Your task to perform on an android device: Open Youtube and go to "Your channel" Image 0: 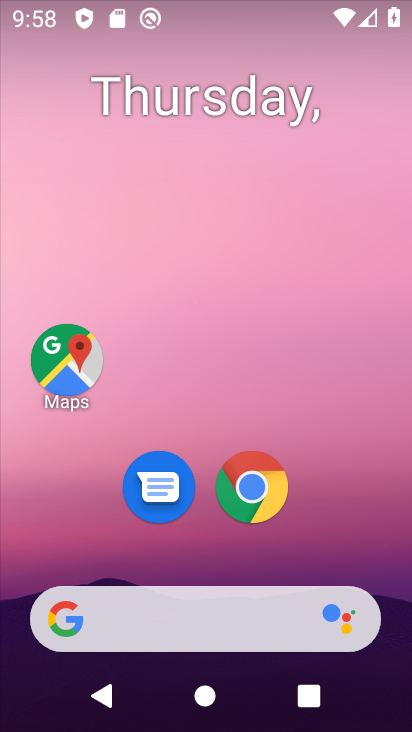
Step 0: drag from (344, 546) to (212, 204)
Your task to perform on an android device: Open Youtube and go to "Your channel" Image 1: 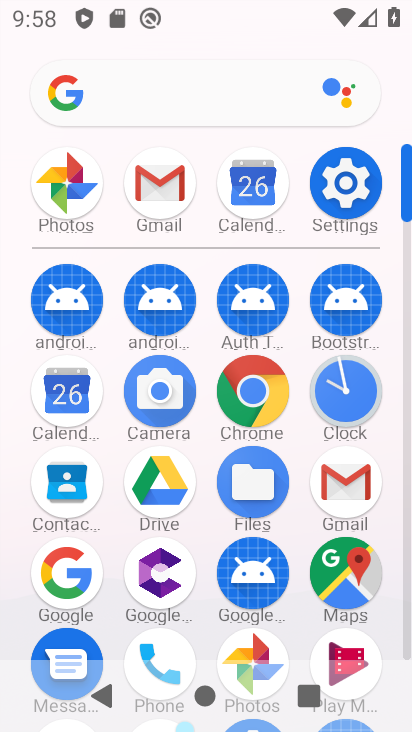
Step 1: click (405, 171)
Your task to perform on an android device: Open Youtube and go to "Your channel" Image 2: 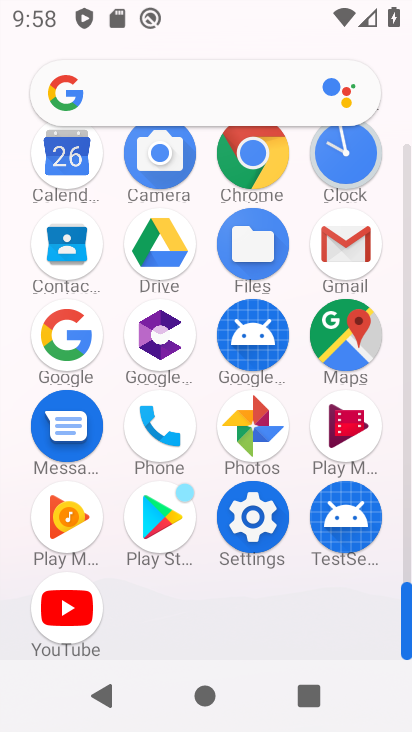
Step 2: click (59, 623)
Your task to perform on an android device: Open Youtube and go to "Your channel" Image 3: 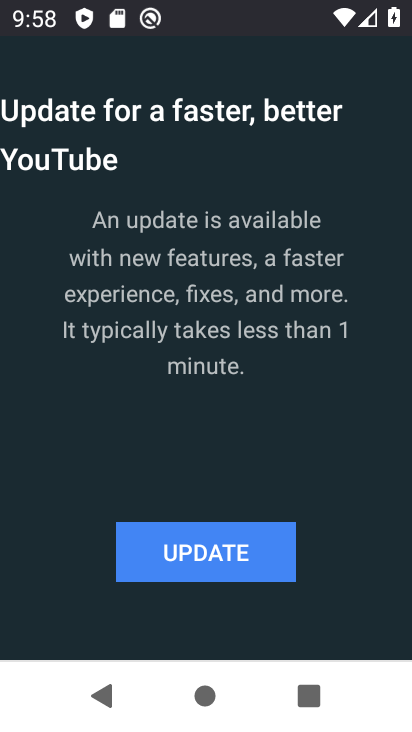
Step 3: click (151, 545)
Your task to perform on an android device: Open Youtube and go to "Your channel" Image 4: 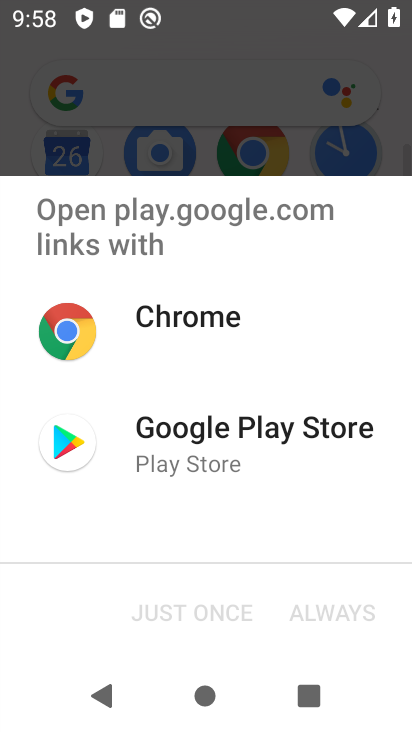
Step 4: click (229, 440)
Your task to perform on an android device: Open Youtube and go to "Your channel" Image 5: 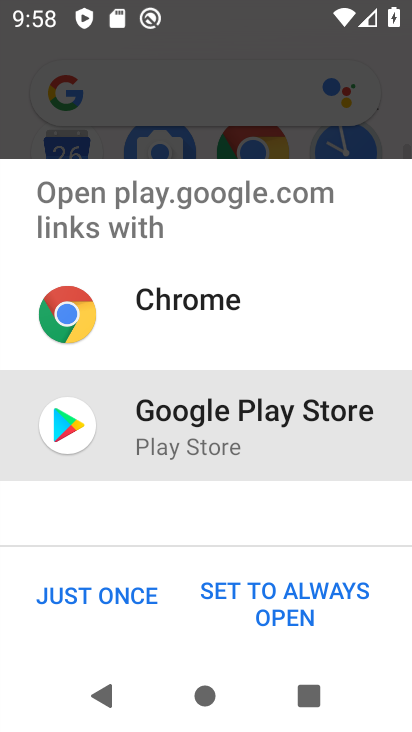
Step 5: click (80, 594)
Your task to perform on an android device: Open Youtube and go to "Your channel" Image 6: 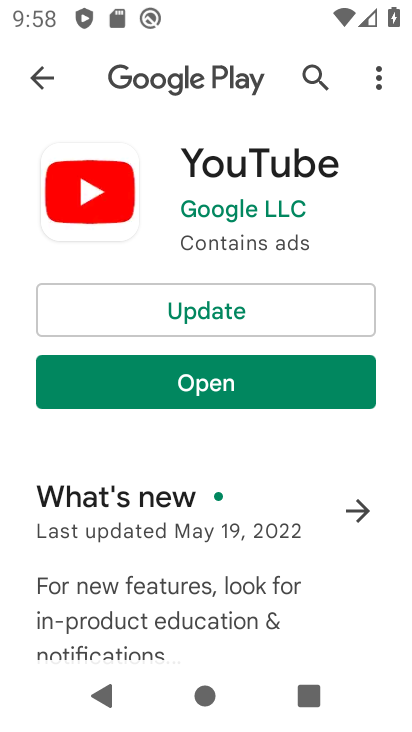
Step 6: click (247, 305)
Your task to perform on an android device: Open Youtube and go to "Your channel" Image 7: 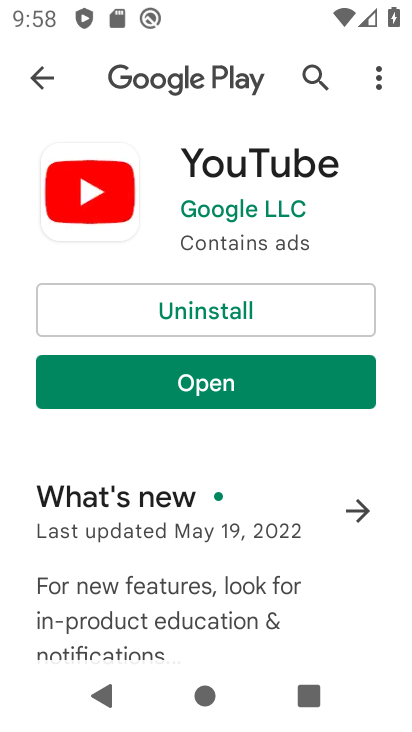
Step 7: click (235, 387)
Your task to perform on an android device: Open Youtube and go to "Your channel" Image 8: 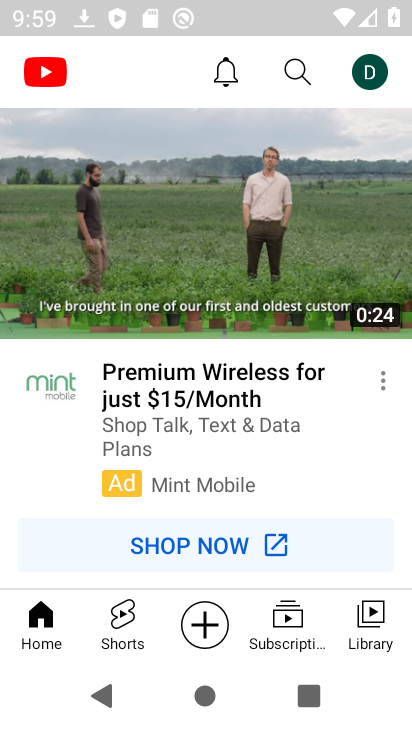
Step 8: click (375, 78)
Your task to perform on an android device: Open Youtube and go to "Your channel" Image 9: 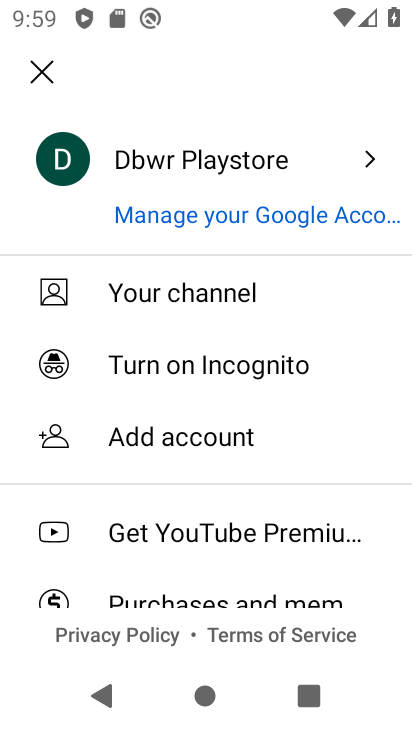
Step 9: click (179, 295)
Your task to perform on an android device: Open Youtube and go to "Your channel" Image 10: 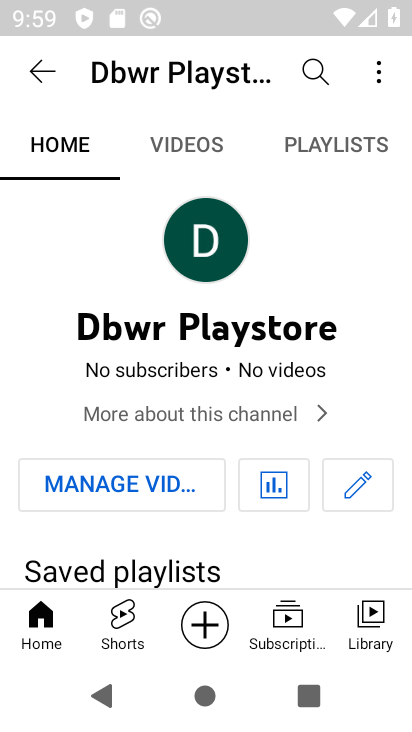
Step 10: task complete